Your task to perform on an android device: Go to settings Image 0: 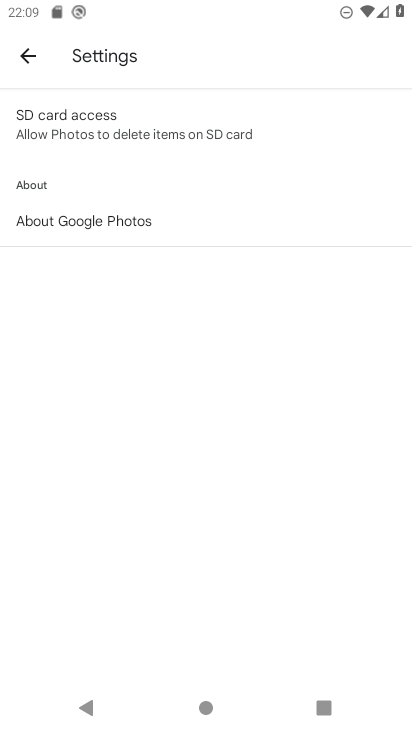
Step 0: press home button
Your task to perform on an android device: Go to settings Image 1: 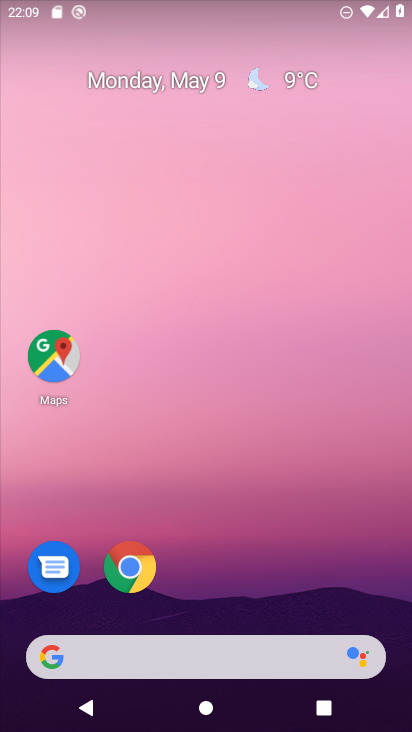
Step 1: drag from (277, 480) to (273, 15)
Your task to perform on an android device: Go to settings Image 2: 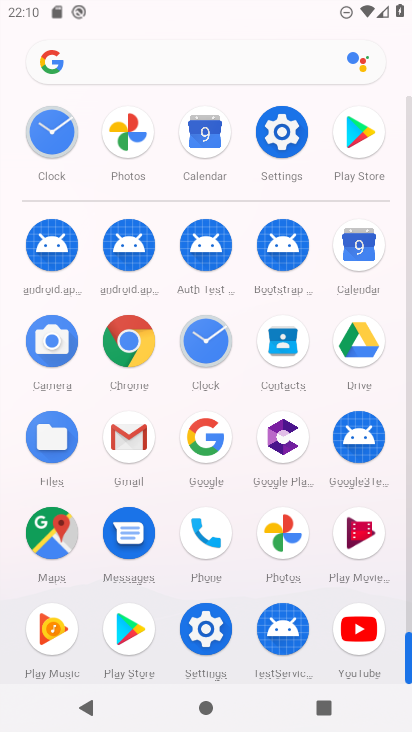
Step 2: click (280, 126)
Your task to perform on an android device: Go to settings Image 3: 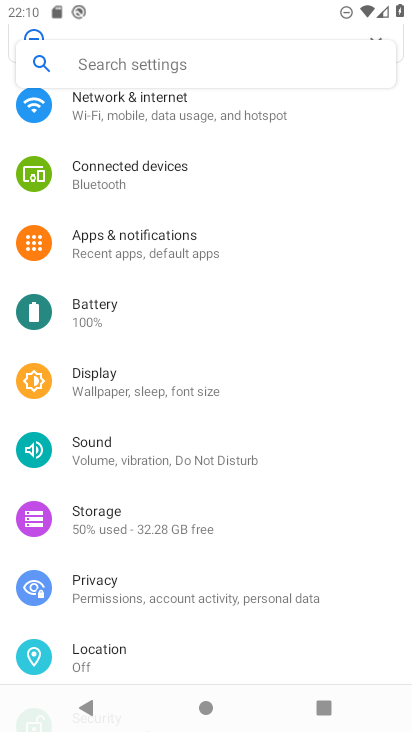
Step 3: task complete